Your task to perform on an android device: Open notification settings Image 0: 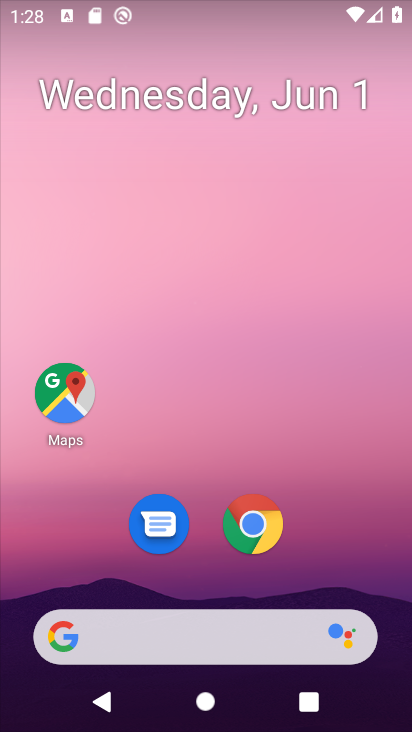
Step 0: drag from (325, 532) to (340, 22)
Your task to perform on an android device: Open notification settings Image 1: 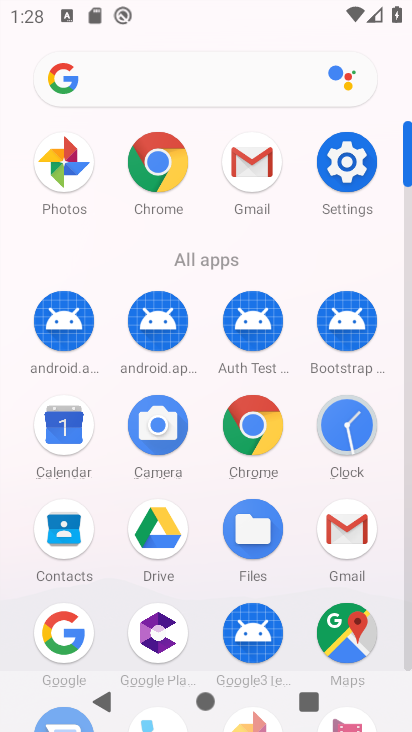
Step 1: click (356, 156)
Your task to perform on an android device: Open notification settings Image 2: 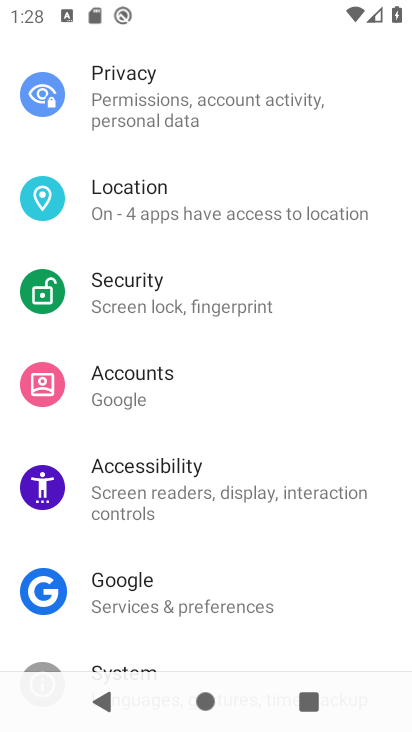
Step 2: drag from (260, 260) to (250, 594)
Your task to perform on an android device: Open notification settings Image 3: 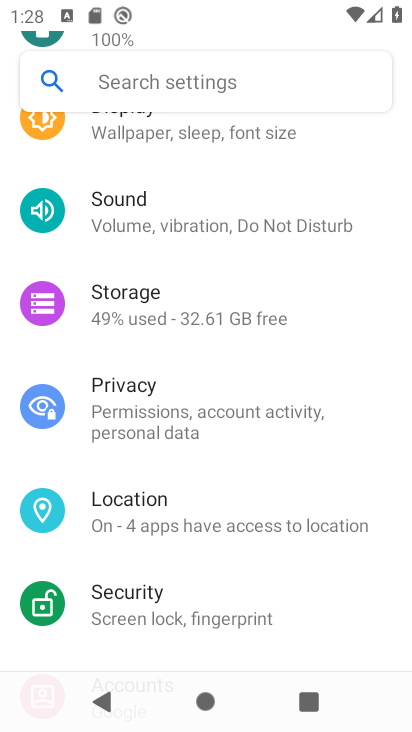
Step 3: drag from (258, 199) to (262, 594)
Your task to perform on an android device: Open notification settings Image 4: 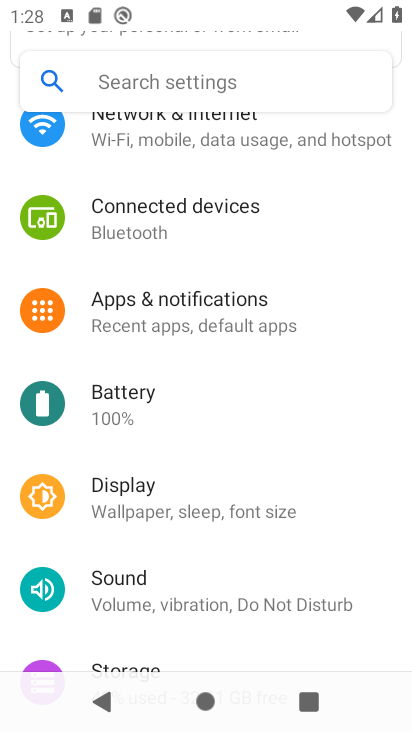
Step 4: click (236, 322)
Your task to perform on an android device: Open notification settings Image 5: 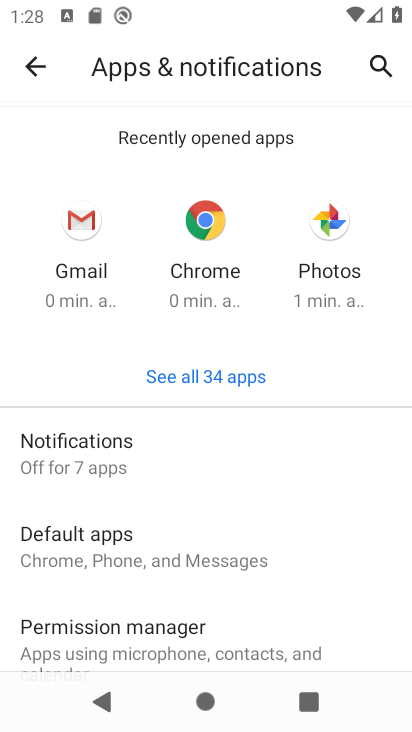
Step 5: click (131, 441)
Your task to perform on an android device: Open notification settings Image 6: 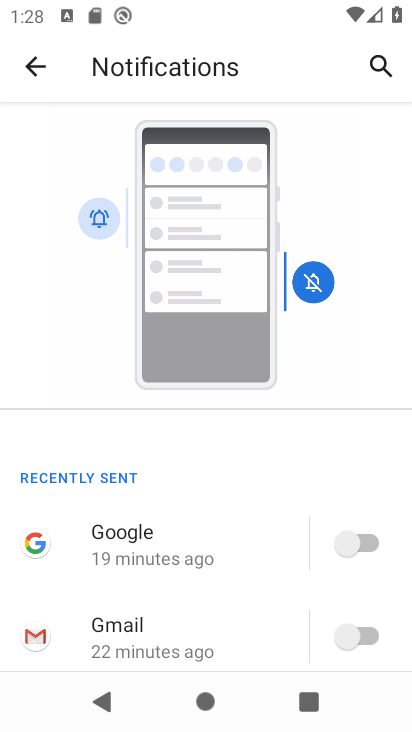
Step 6: task complete